Your task to perform on an android device: show emergency info Image 0: 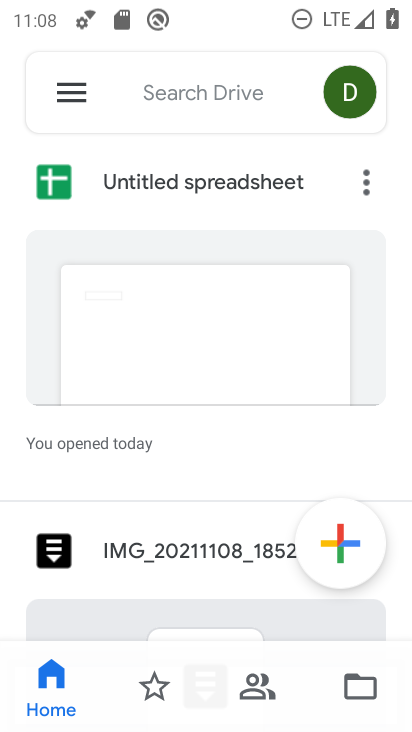
Step 0: press home button
Your task to perform on an android device: show emergency info Image 1: 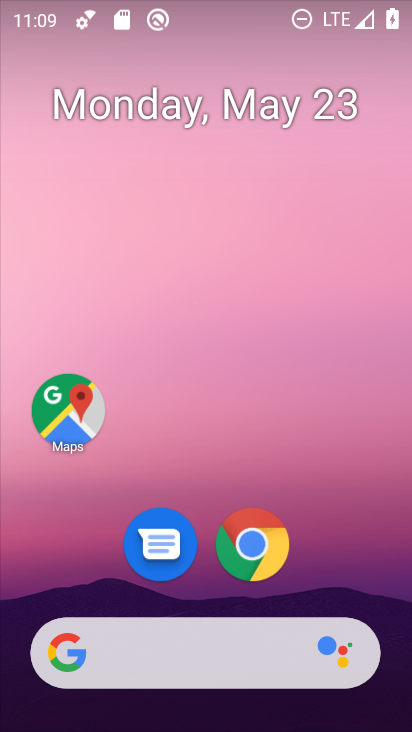
Step 1: drag from (397, 611) to (367, 5)
Your task to perform on an android device: show emergency info Image 2: 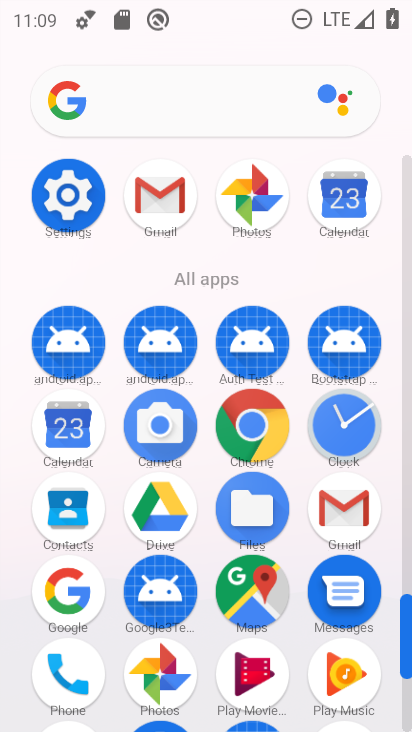
Step 2: click (407, 703)
Your task to perform on an android device: show emergency info Image 3: 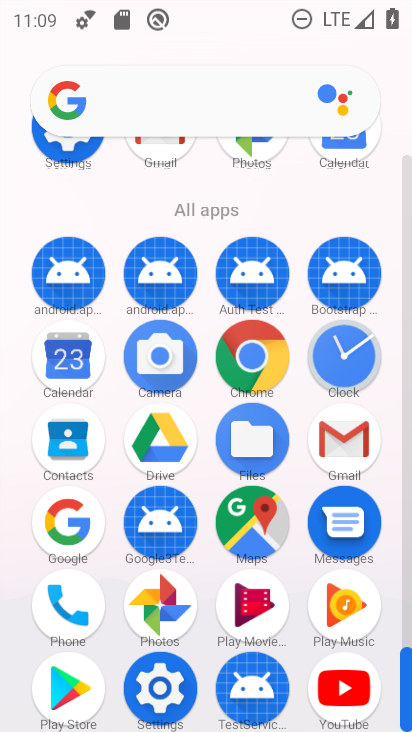
Step 3: click (158, 685)
Your task to perform on an android device: show emergency info Image 4: 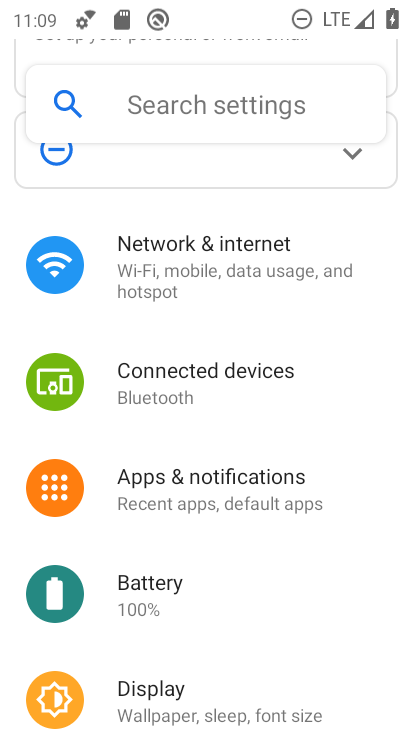
Step 4: drag from (357, 640) to (257, 74)
Your task to perform on an android device: show emergency info Image 5: 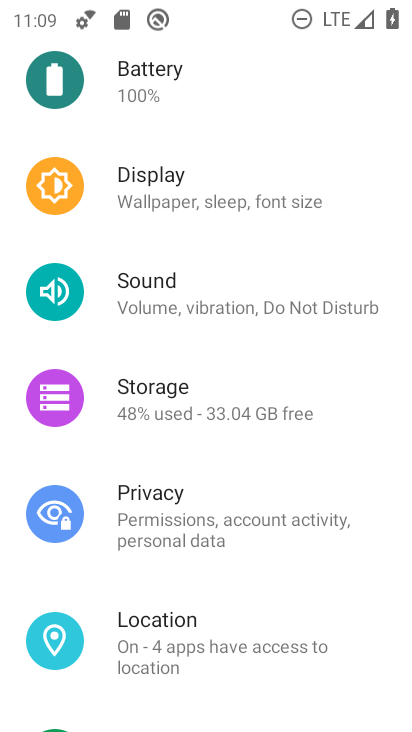
Step 5: drag from (390, 617) to (352, 95)
Your task to perform on an android device: show emergency info Image 6: 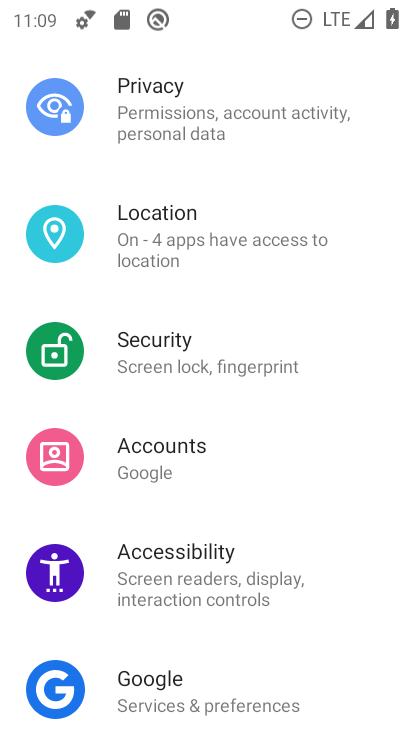
Step 6: drag from (359, 587) to (306, 20)
Your task to perform on an android device: show emergency info Image 7: 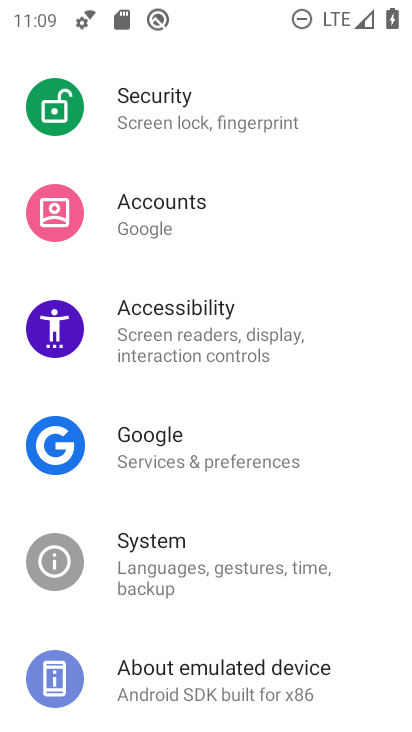
Step 7: click (191, 678)
Your task to perform on an android device: show emergency info Image 8: 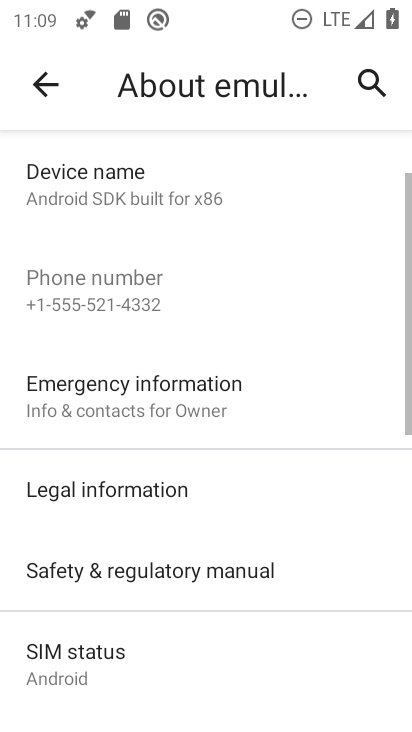
Step 8: click (127, 390)
Your task to perform on an android device: show emergency info Image 9: 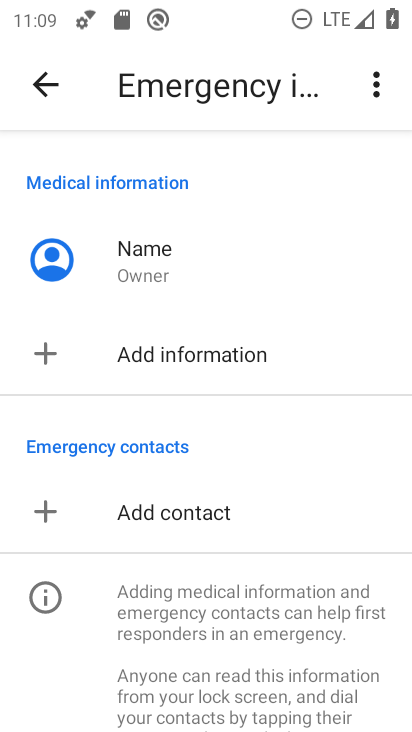
Step 9: task complete